Your task to perform on an android device: Go to location settings Image 0: 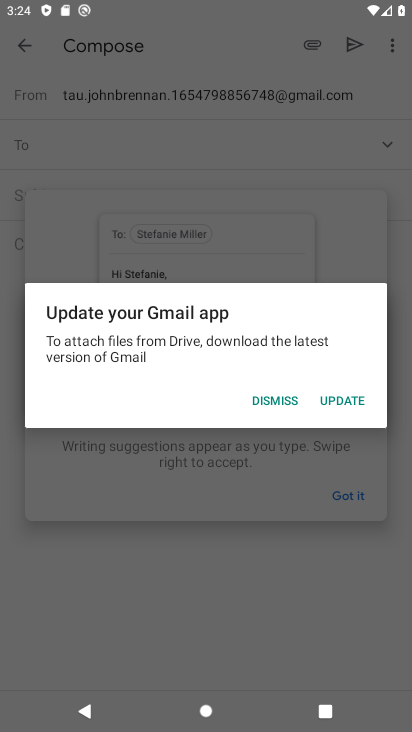
Step 0: press home button
Your task to perform on an android device: Go to location settings Image 1: 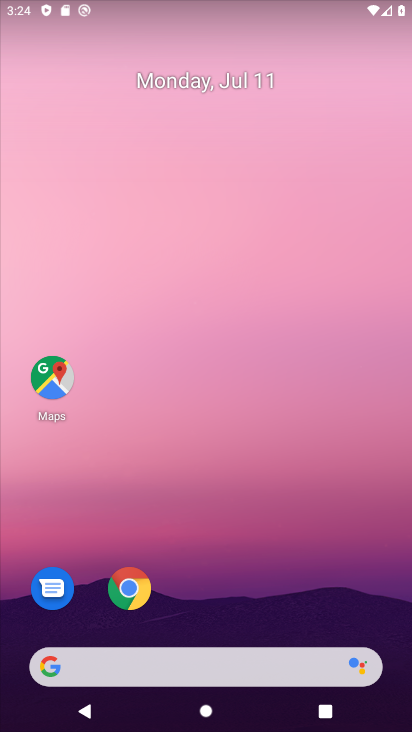
Step 1: drag from (292, 558) to (247, 47)
Your task to perform on an android device: Go to location settings Image 2: 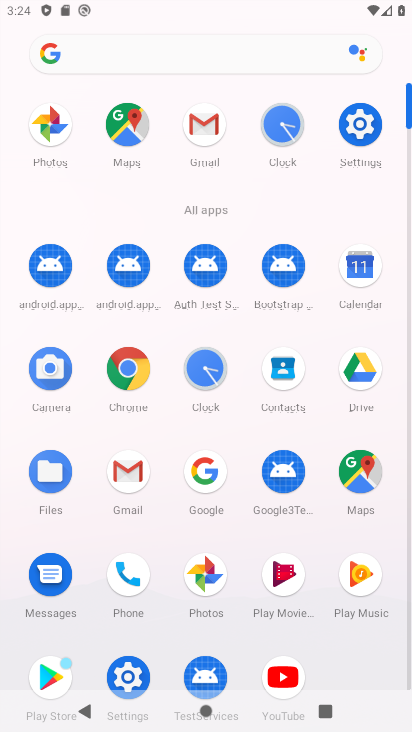
Step 2: click (354, 130)
Your task to perform on an android device: Go to location settings Image 3: 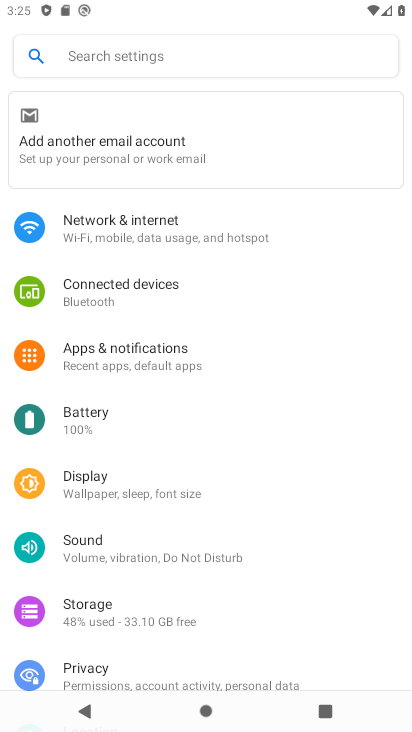
Step 3: drag from (209, 581) to (179, 244)
Your task to perform on an android device: Go to location settings Image 4: 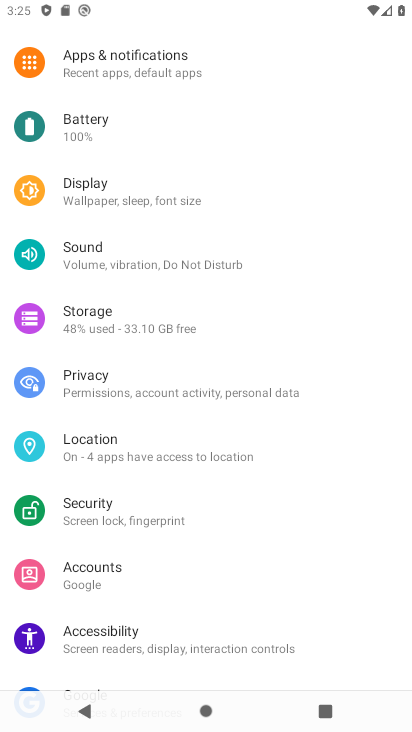
Step 4: click (77, 452)
Your task to perform on an android device: Go to location settings Image 5: 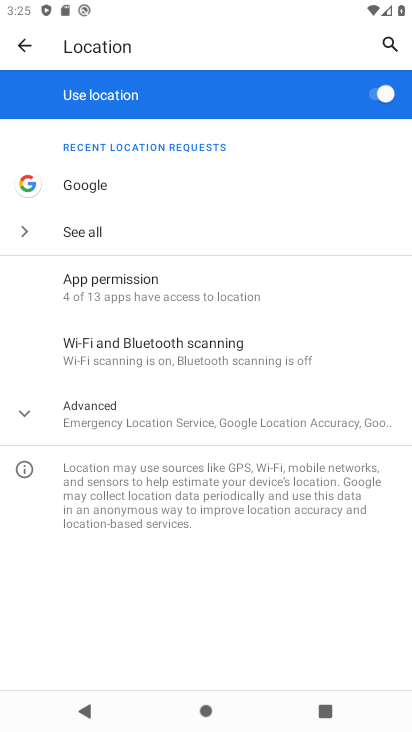
Step 5: task complete